Your task to perform on an android device: Open display settings Image 0: 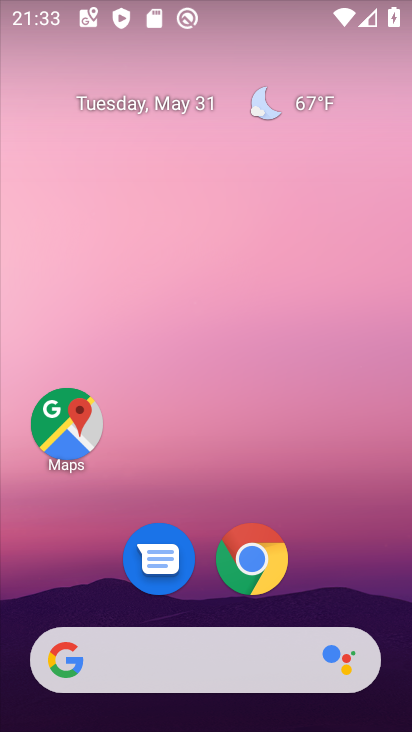
Step 0: drag from (319, 566) to (328, 89)
Your task to perform on an android device: Open display settings Image 1: 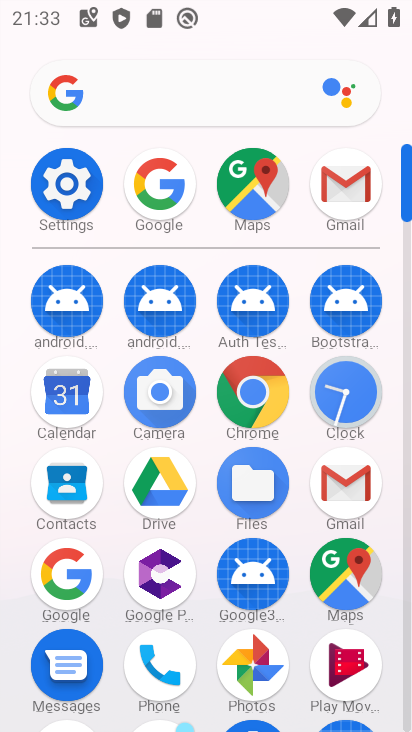
Step 1: click (71, 180)
Your task to perform on an android device: Open display settings Image 2: 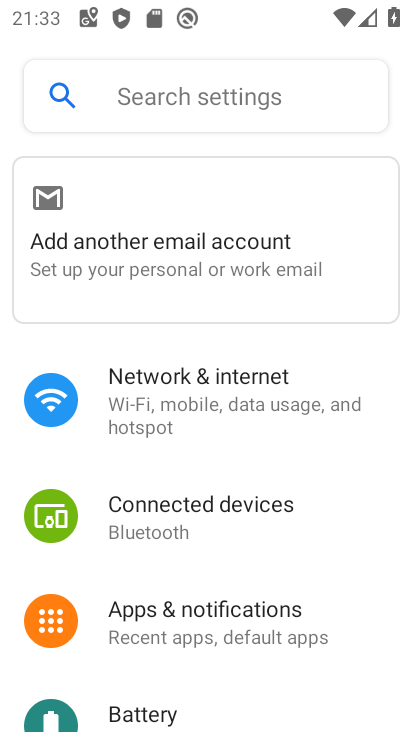
Step 2: drag from (183, 631) to (198, 176)
Your task to perform on an android device: Open display settings Image 3: 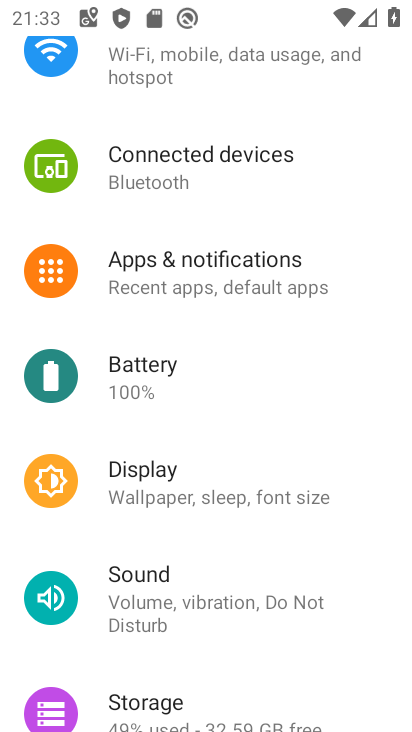
Step 3: click (121, 482)
Your task to perform on an android device: Open display settings Image 4: 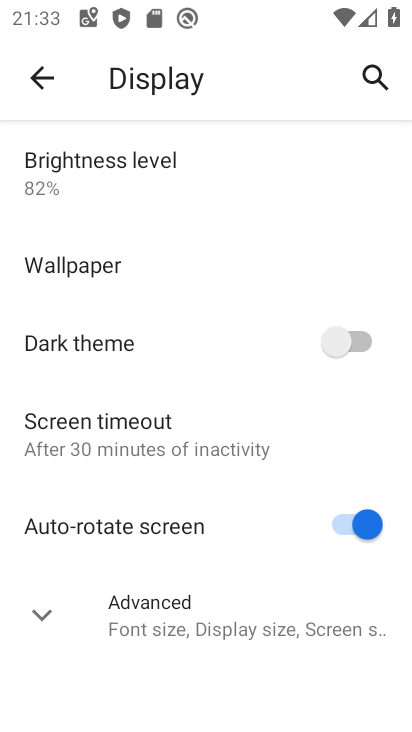
Step 4: task complete